Your task to perform on an android device: turn on javascript in the chrome app Image 0: 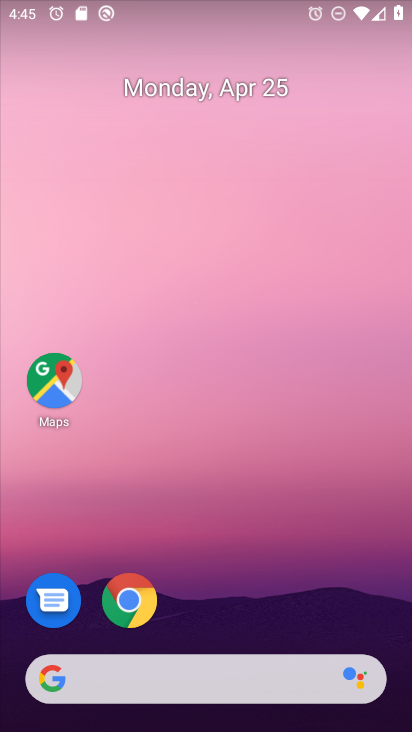
Step 0: drag from (239, 497) to (175, 76)
Your task to perform on an android device: turn on javascript in the chrome app Image 1: 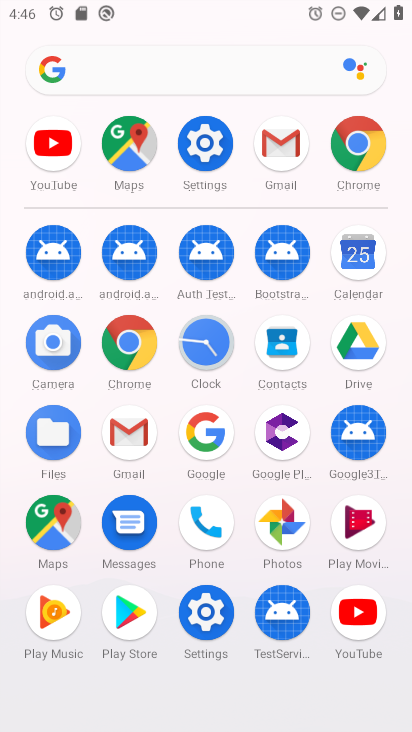
Step 1: click (126, 343)
Your task to perform on an android device: turn on javascript in the chrome app Image 2: 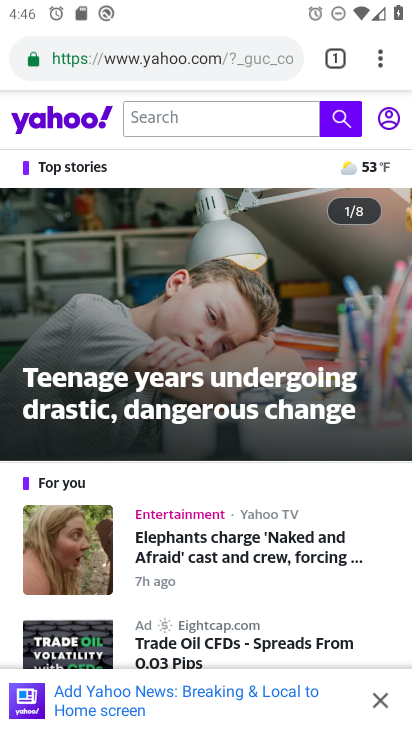
Step 2: drag from (376, 64) to (184, 625)
Your task to perform on an android device: turn on javascript in the chrome app Image 3: 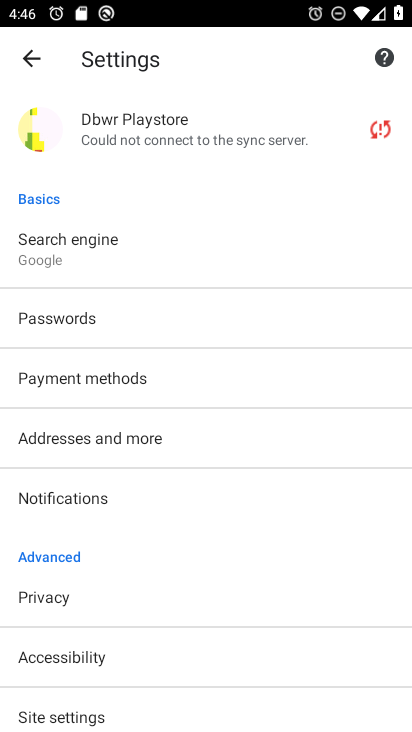
Step 3: drag from (199, 571) to (211, 233)
Your task to perform on an android device: turn on javascript in the chrome app Image 4: 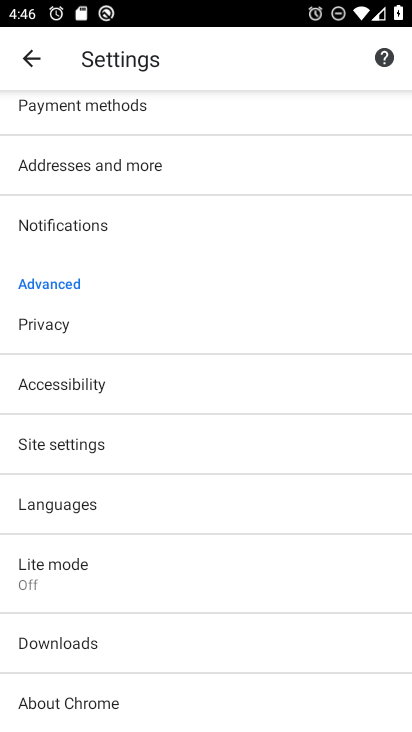
Step 4: drag from (144, 597) to (182, 323)
Your task to perform on an android device: turn on javascript in the chrome app Image 5: 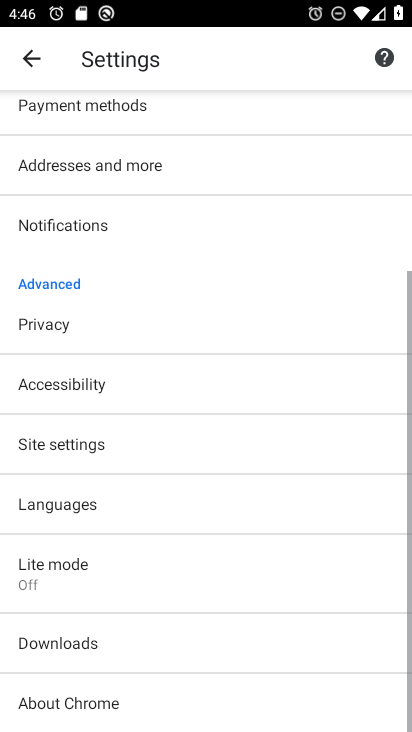
Step 5: click (90, 453)
Your task to perform on an android device: turn on javascript in the chrome app Image 6: 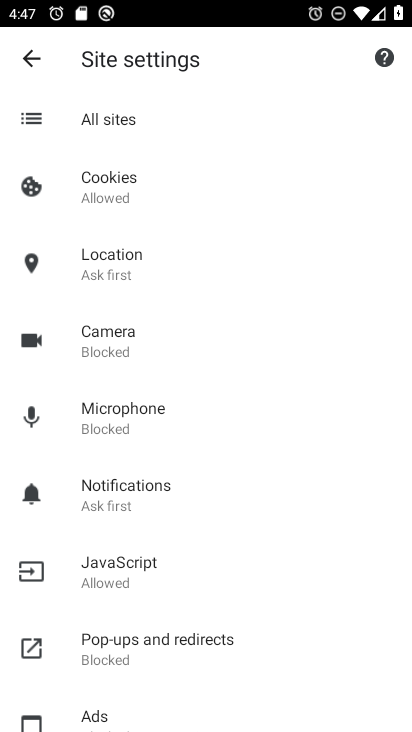
Step 6: click (150, 564)
Your task to perform on an android device: turn on javascript in the chrome app Image 7: 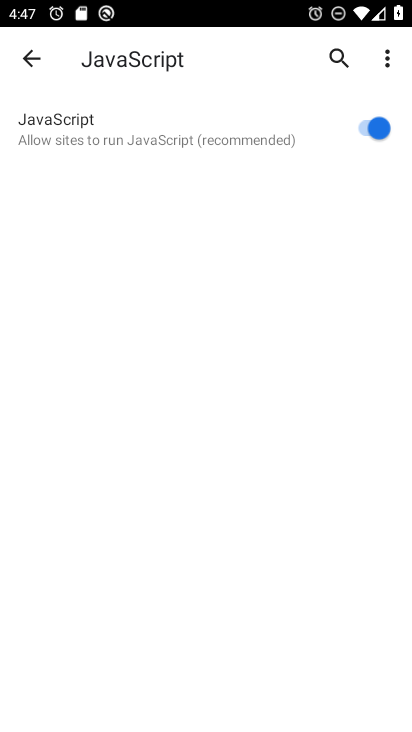
Step 7: task complete